Your task to perform on an android device: Show me popular games on the Play Store Image 0: 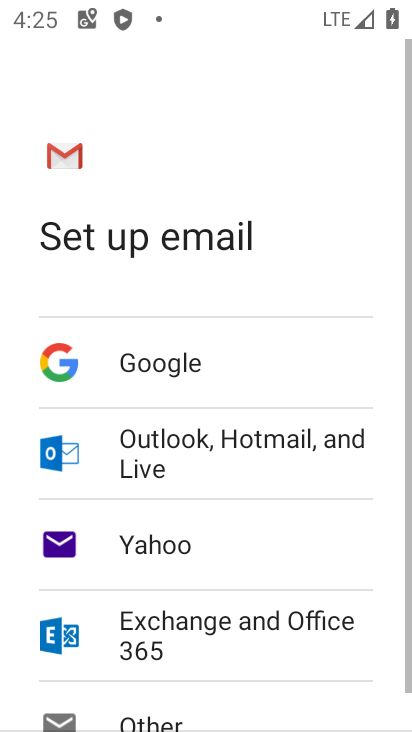
Step 0: press home button
Your task to perform on an android device: Show me popular games on the Play Store Image 1: 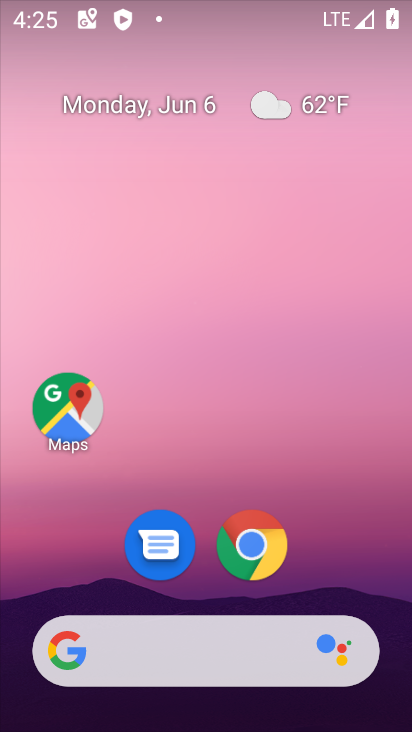
Step 1: drag from (236, 728) to (234, 71)
Your task to perform on an android device: Show me popular games on the Play Store Image 2: 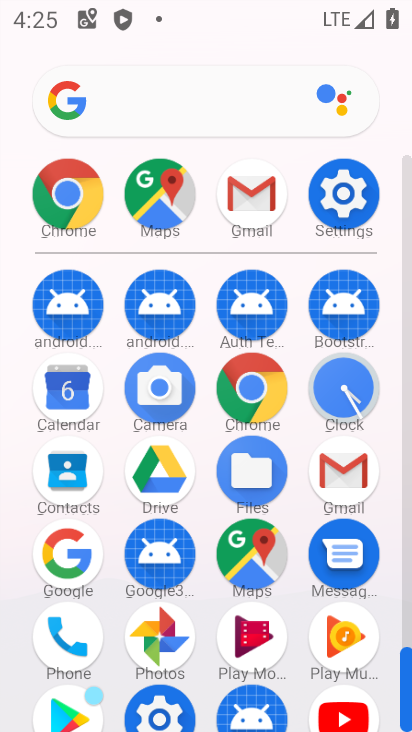
Step 2: drag from (299, 641) to (294, 283)
Your task to perform on an android device: Show me popular games on the Play Store Image 3: 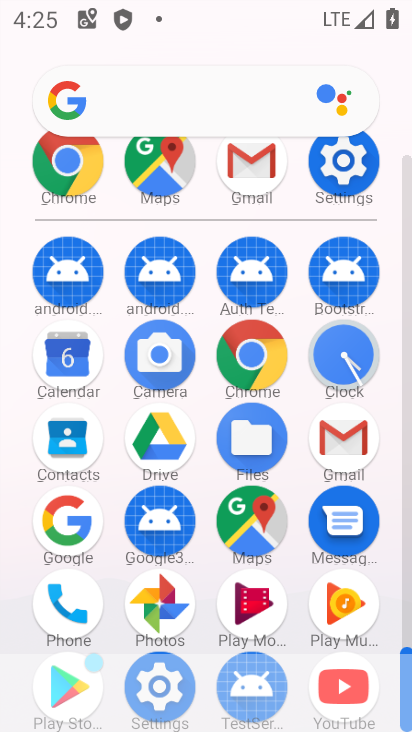
Step 3: drag from (202, 596) to (185, 258)
Your task to perform on an android device: Show me popular games on the Play Store Image 4: 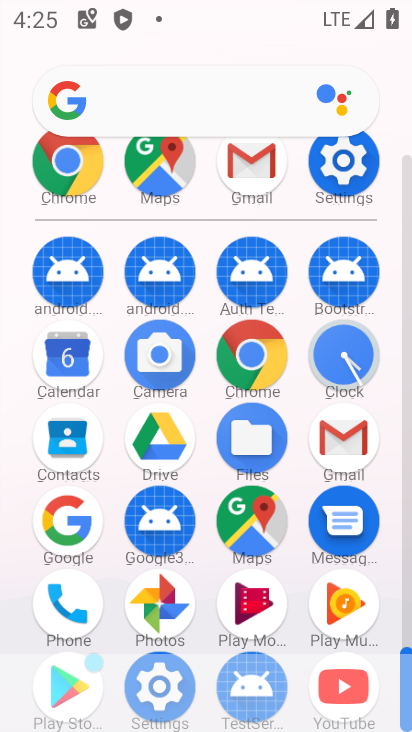
Step 4: click (59, 670)
Your task to perform on an android device: Show me popular games on the Play Store Image 5: 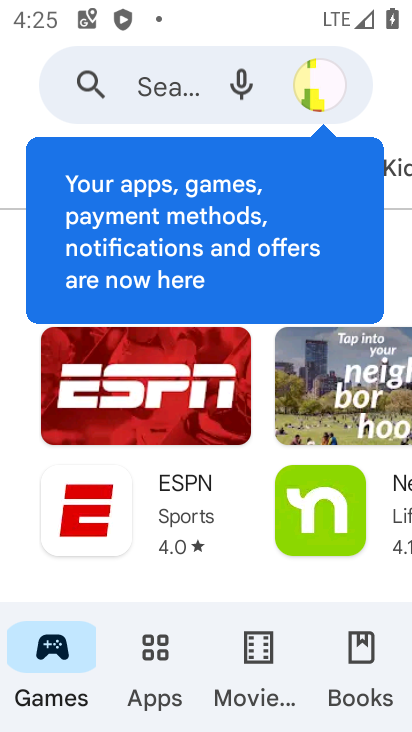
Step 5: drag from (237, 593) to (222, 225)
Your task to perform on an android device: Show me popular games on the Play Store Image 6: 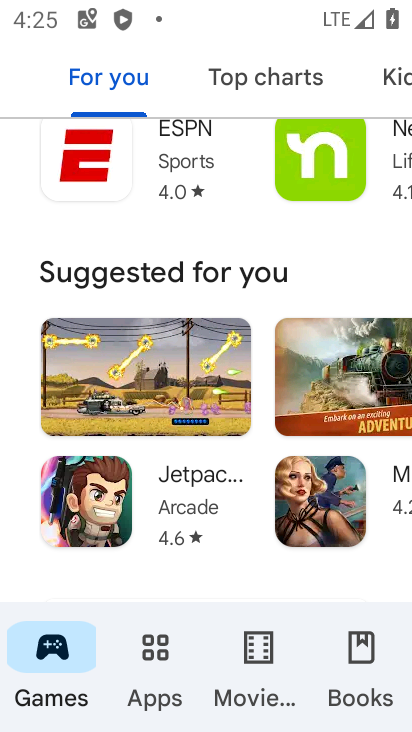
Step 6: drag from (241, 578) to (231, 274)
Your task to perform on an android device: Show me popular games on the Play Store Image 7: 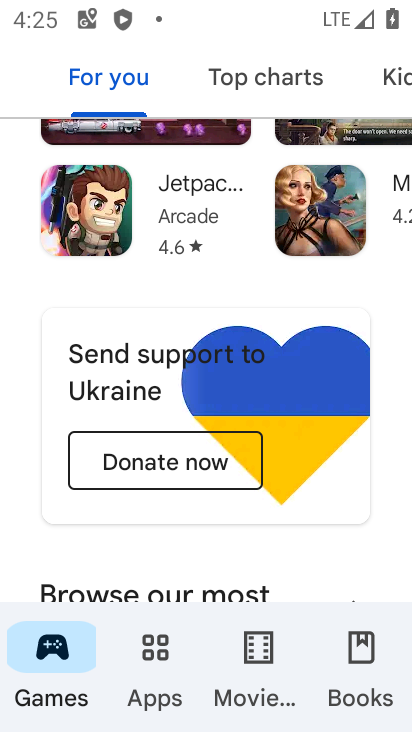
Step 7: drag from (224, 565) to (206, 249)
Your task to perform on an android device: Show me popular games on the Play Store Image 8: 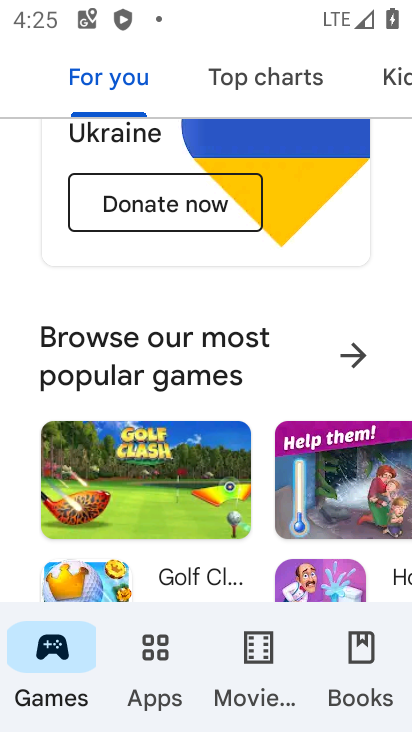
Step 8: click (251, 361)
Your task to perform on an android device: Show me popular games on the Play Store Image 9: 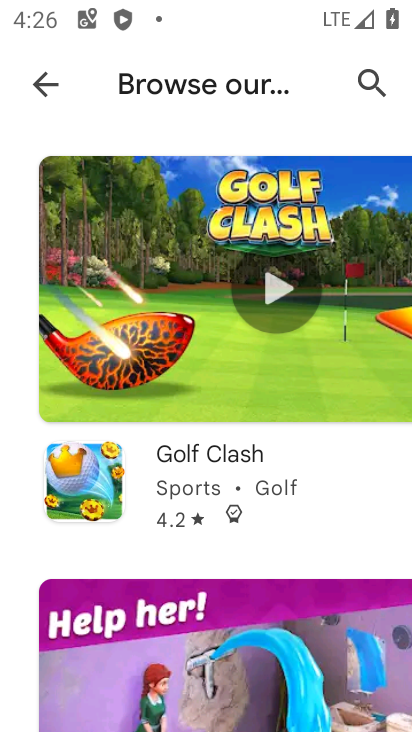
Step 9: task complete